Your task to perform on an android device: make emails show in primary in the gmail app Image 0: 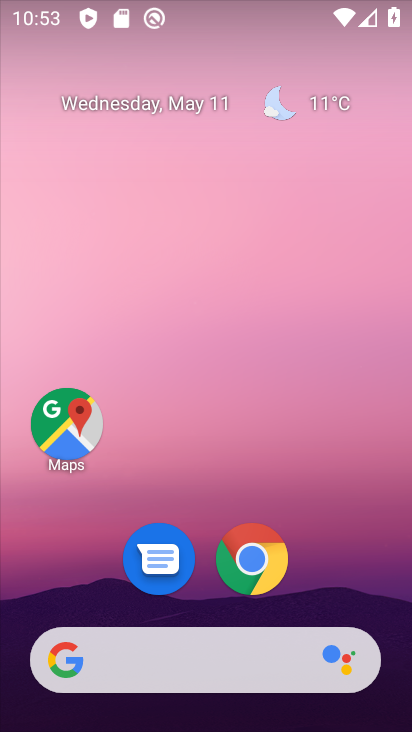
Step 0: drag from (321, 524) to (242, 88)
Your task to perform on an android device: make emails show in primary in the gmail app Image 1: 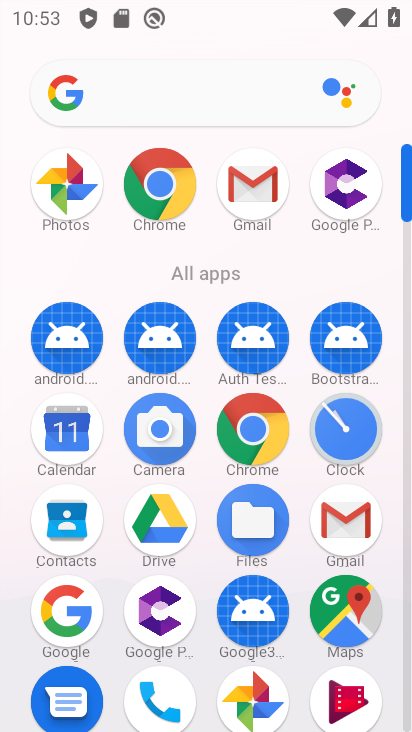
Step 1: click (246, 166)
Your task to perform on an android device: make emails show in primary in the gmail app Image 2: 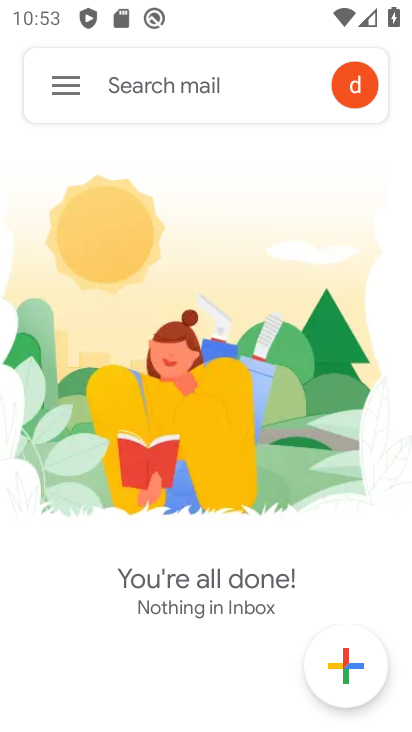
Step 2: click (66, 82)
Your task to perform on an android device: make emails show in primary in the gmail app Image 3: 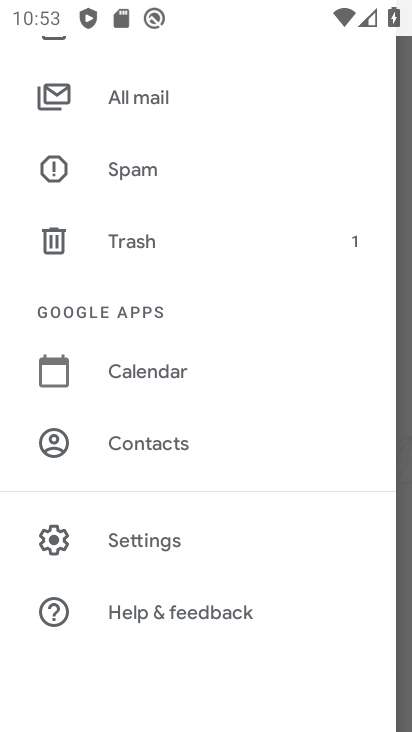
Step 3: click (158, 531)
Your task to perform on an android device: make emails show in primary in the gmail app Image 4: 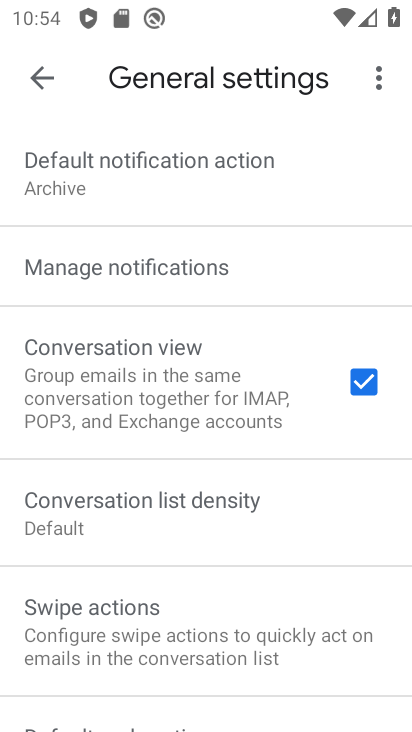
Step 4: click (36, 84)
Your task to perform on an android device: make emails show in primary in the gmail app Image 5: 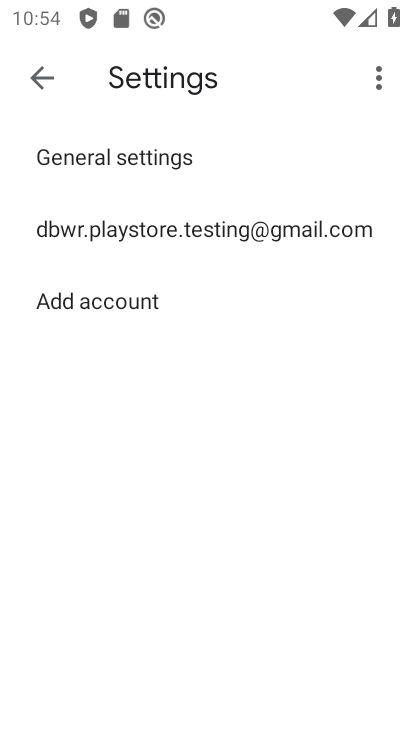
Step 5: click (197, 217)
Your task to perform on an android device: make emails show in primary in the gmail app Image 6: 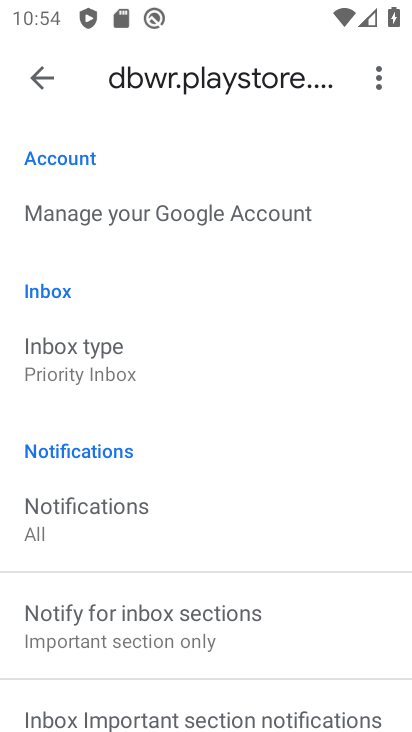
Step 6: click (113, 347)
Your task to perform on an android device: make emails show in primary in the gmail app Image 7: 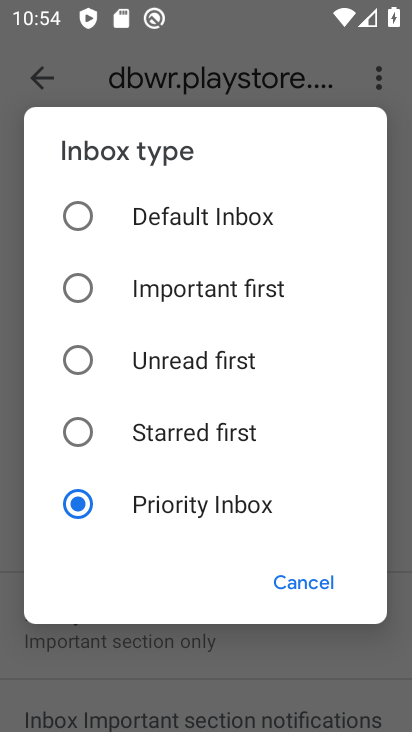
Step 7: click (74, 212)
Your task to perform on an android device: make emails show in primary in the gmail app Image 8: 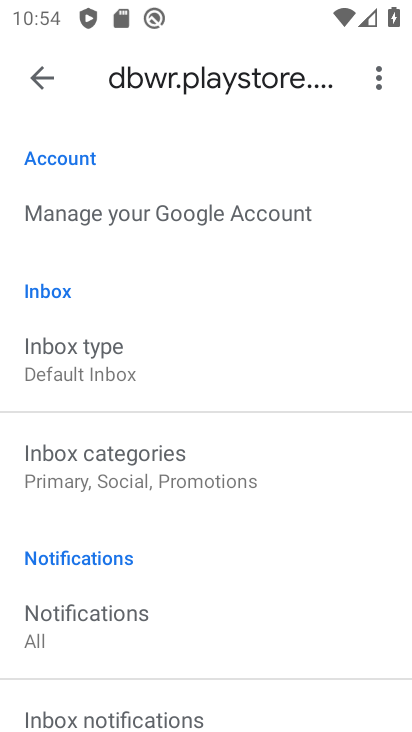
Step 8: click (177, 468)
Your task to perform on an android device: make emails show in primary in the gmail app Image 9: 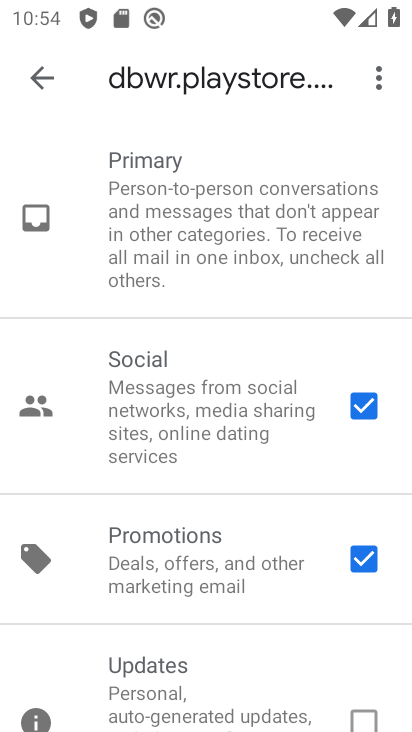
Step 9: click (361, 398)
Your task to perform on an android device: make emails show in primary in the gmail app Image 10: 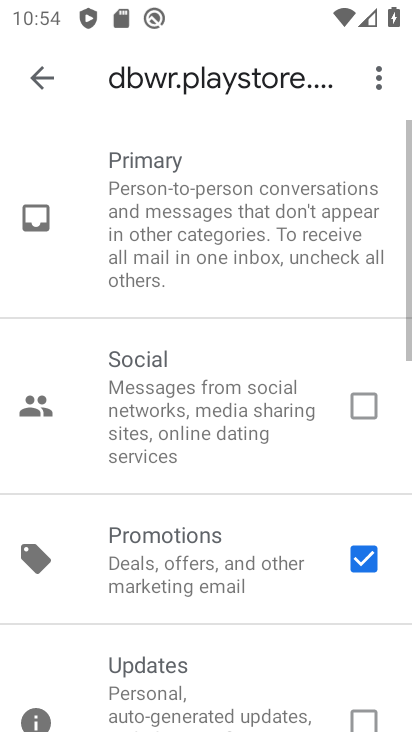
Step 10: click (373, 551)
Your task to perform on an android device: make emails show in primary in the gmail app Image 11: 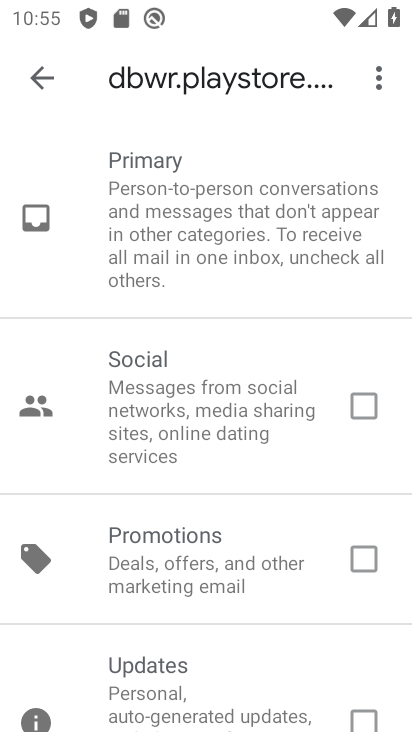
Step 11: task complete